Your task to perform on an android device: Search for seafood restaurants on Google Maps Image 0: 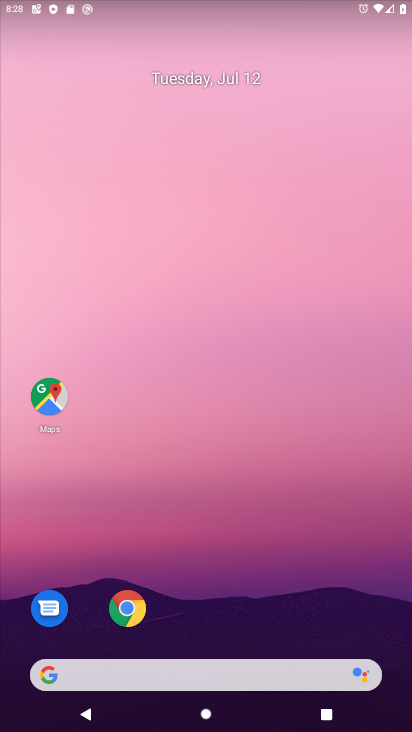
Step 0: click (49, 400)
Your task to perform on an android device: Search for seafood restaurants on Google Maps Image 1: 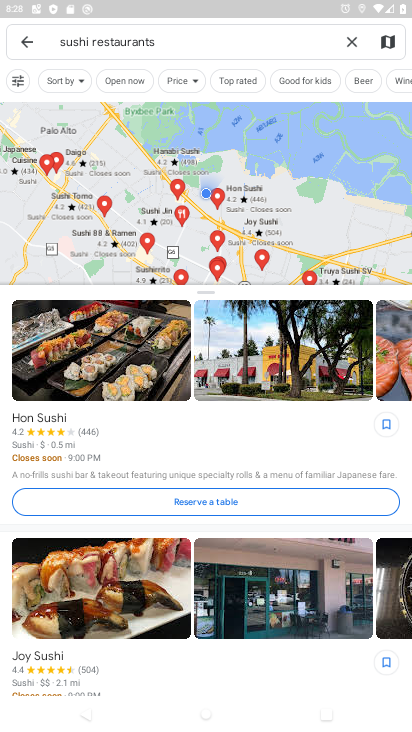
Step 1: click (353, 39)
Your task to perform on an android device: Search for seafood restaurants on Google Maps Image 2: 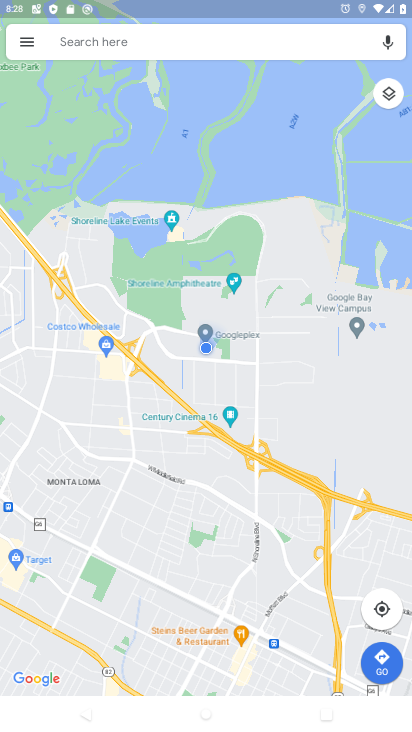
Step 2: click (268, 33)
Your task to perform on an android device: Search for seafood restaurants on Google Maps Image 3: 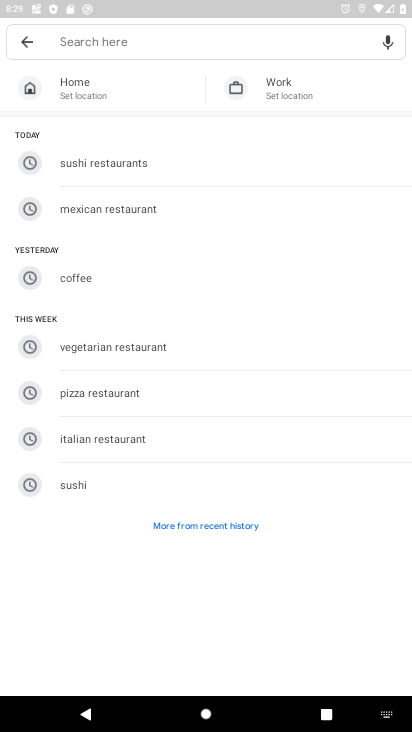
Step 3: type "seafood restaurants"
Your task to perform on an android device: Search for seafood restaurants on Google Maps Image 4: 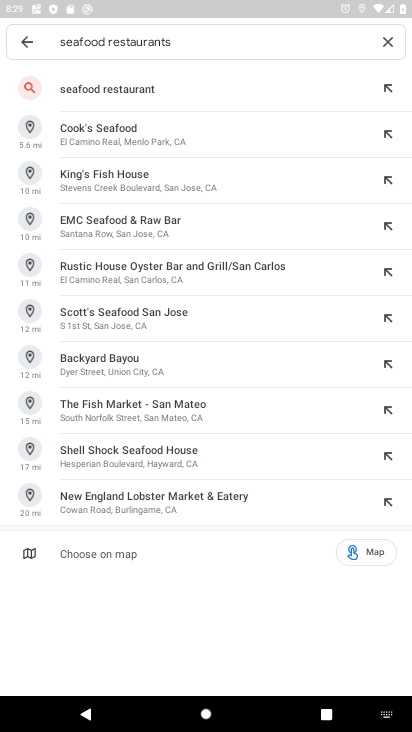
Step 4: click (77, 73)
Your task to perform on an android device: Search for seafood restaurants on Google Maps Image 5: 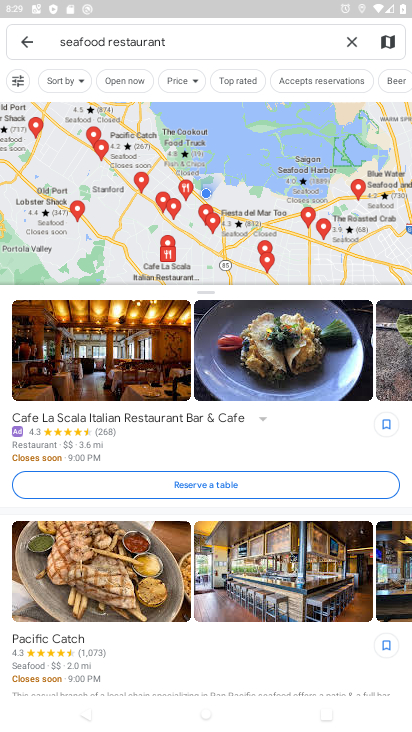
Step 5: task complete